Your task to perform on an android device: Add razer blade to the cart on newegg.com, then select checkout. Image 0: 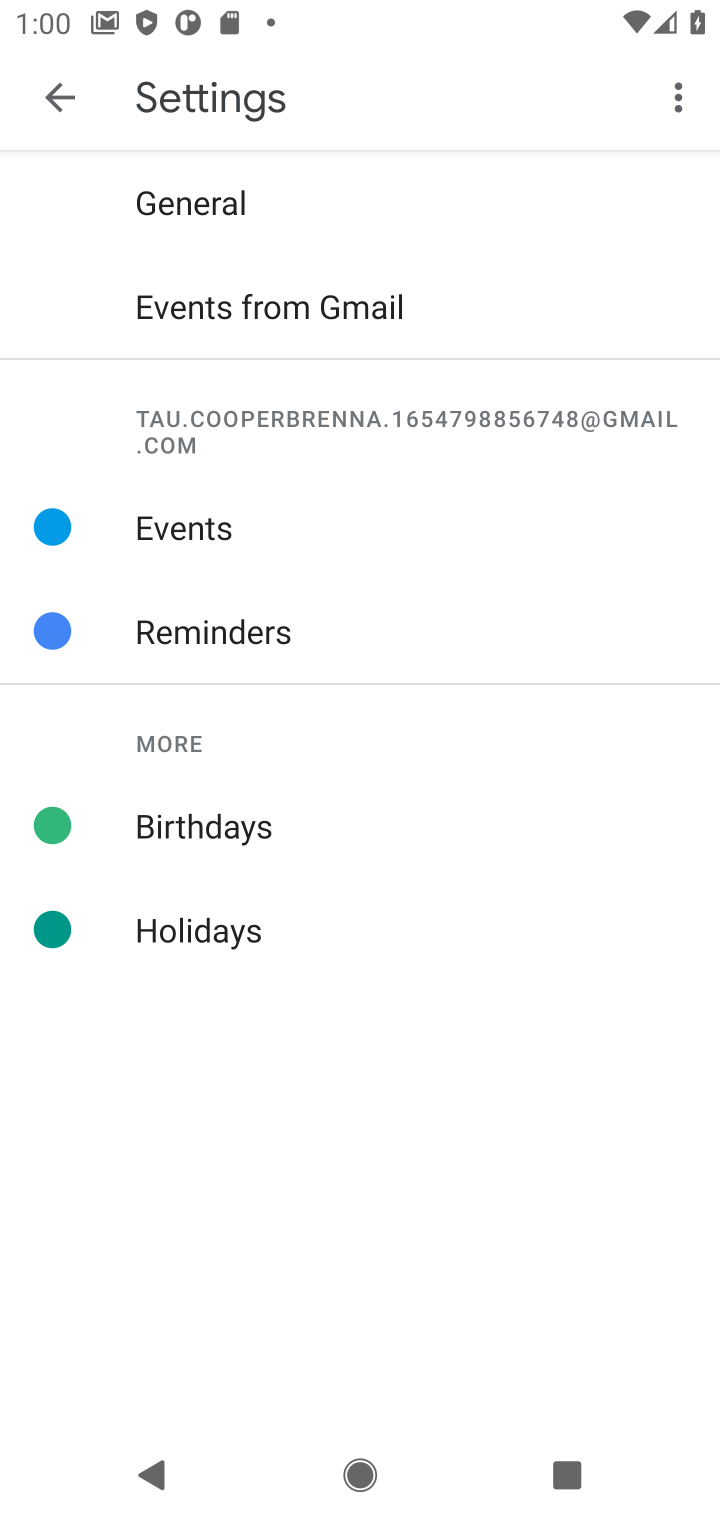
Step 0: press home button
Your task to perform on an android device: Add razer blade to the cart on newegg.com, then select checkout. Image 1: 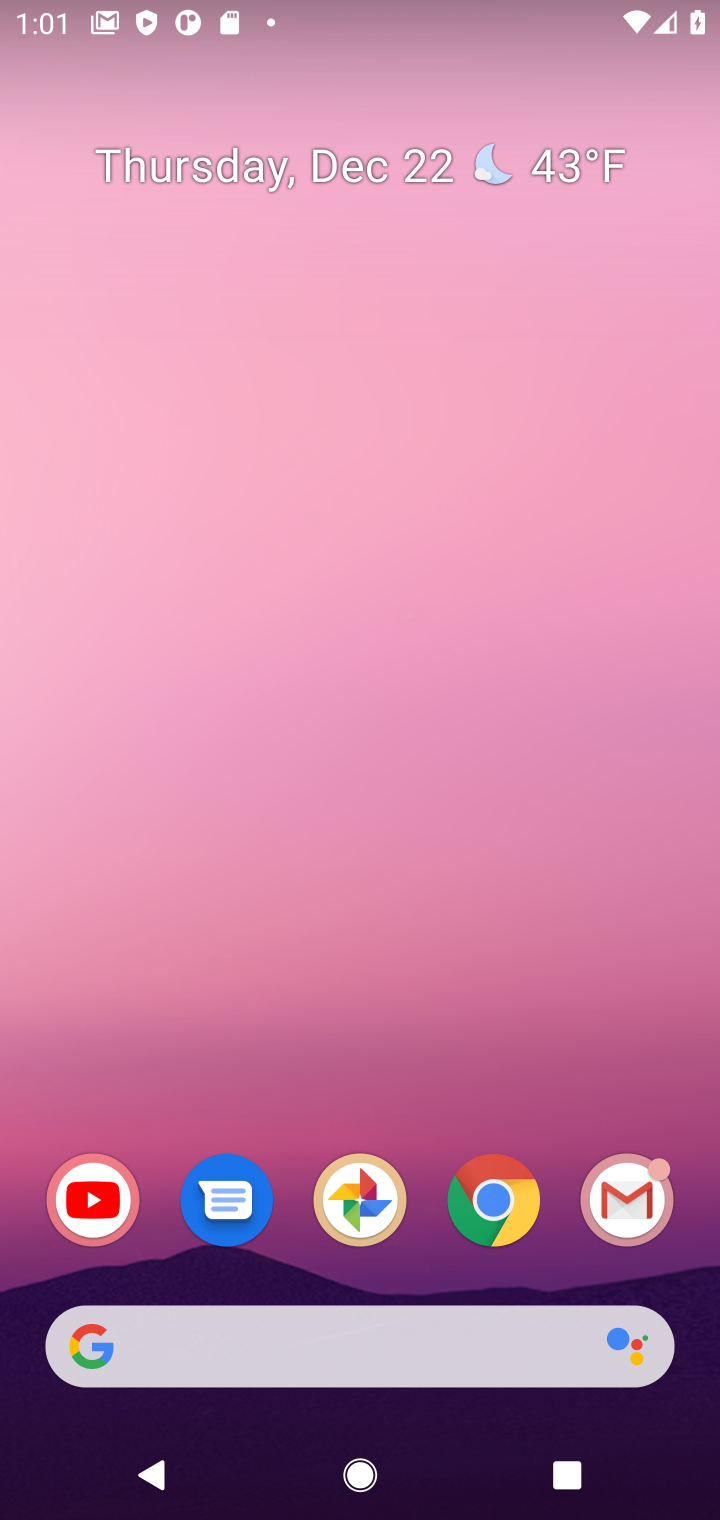
Step 1: click (493, 1201)
Your task to perform on an android device: Add razer blade to the cart on newegg.com, then select checkout. Image 2: 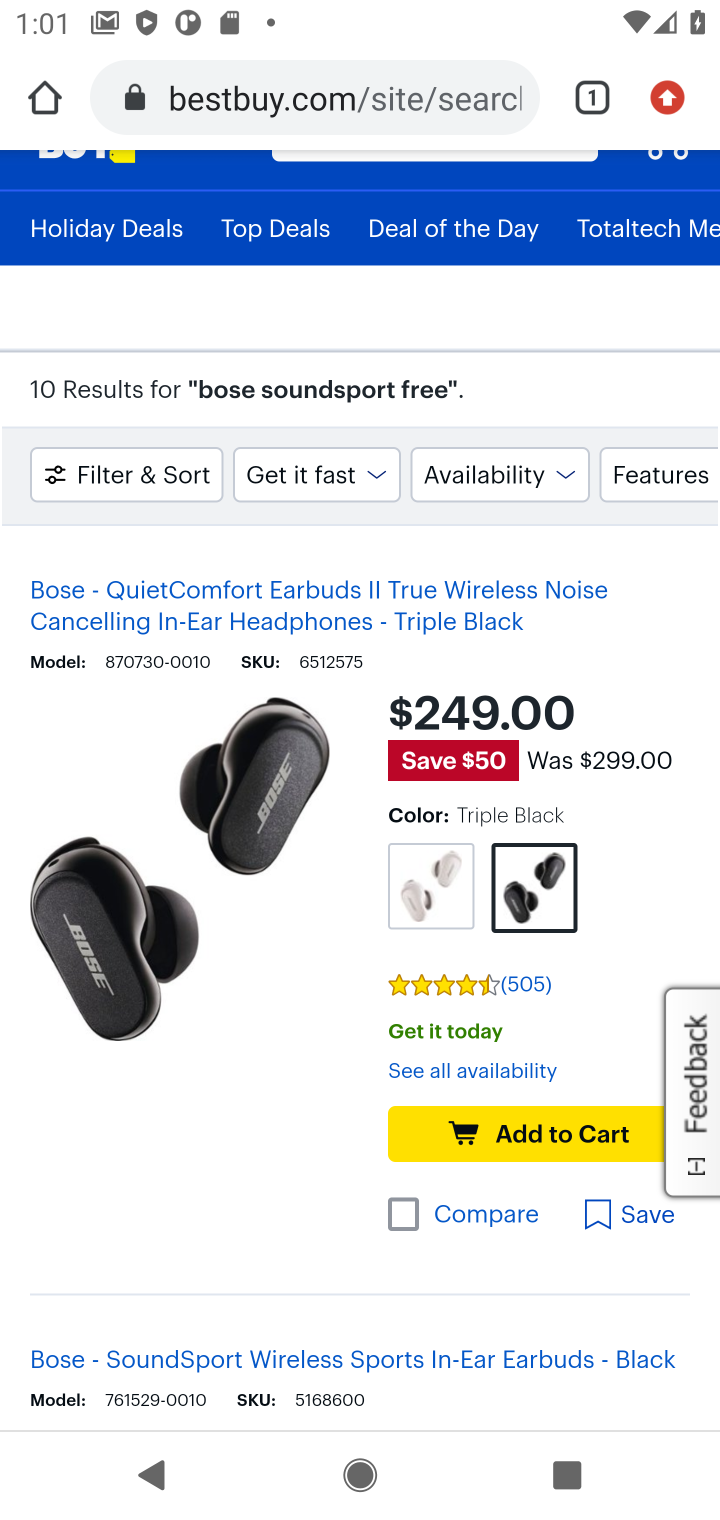
Step 2: click (245, 97)
Your task to perform on an android device: Add razer blade to the cart on newegg.com, then select checkout. Image 3: 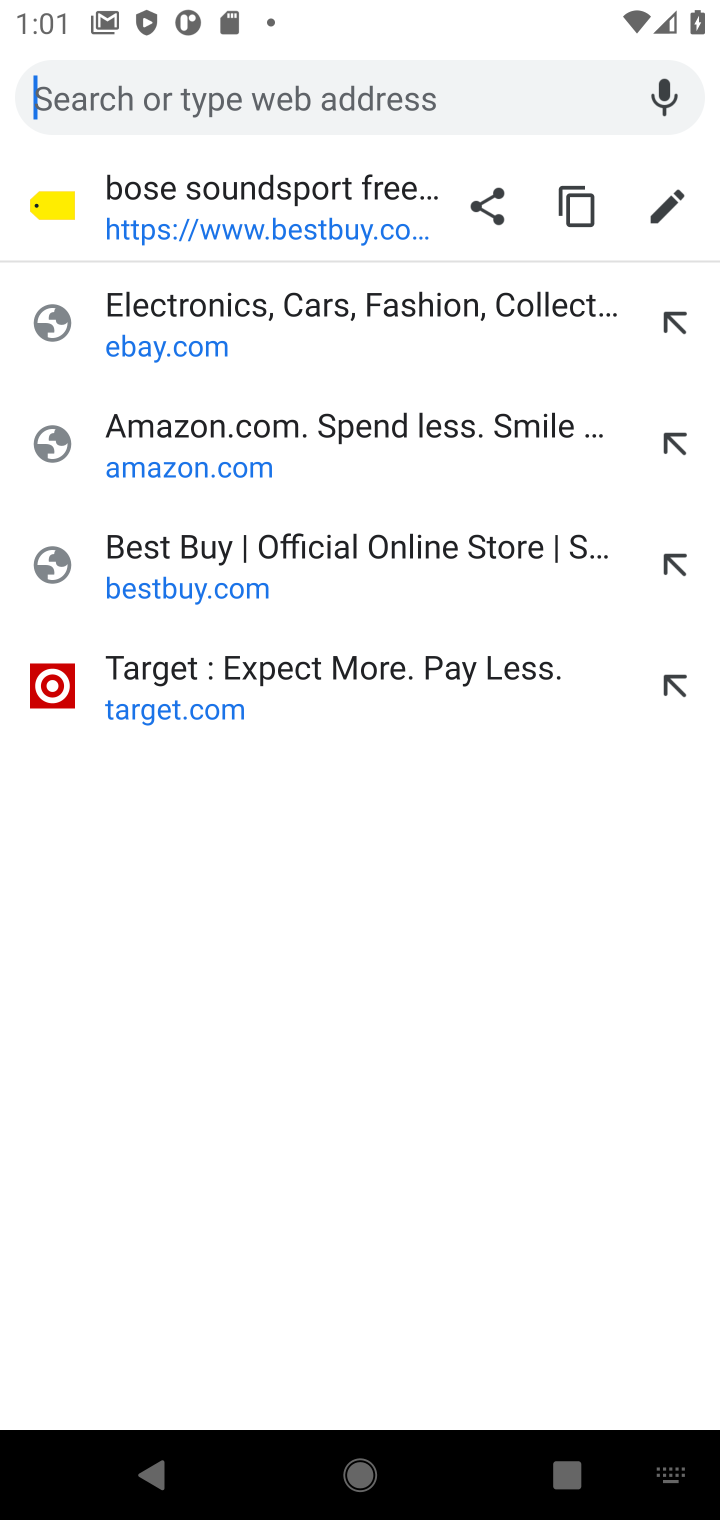
Step 3: type "newegg.com"
Your task to perform on an android device: Add razer blade to the cart on newegg.com, then select checkout. Image 4: 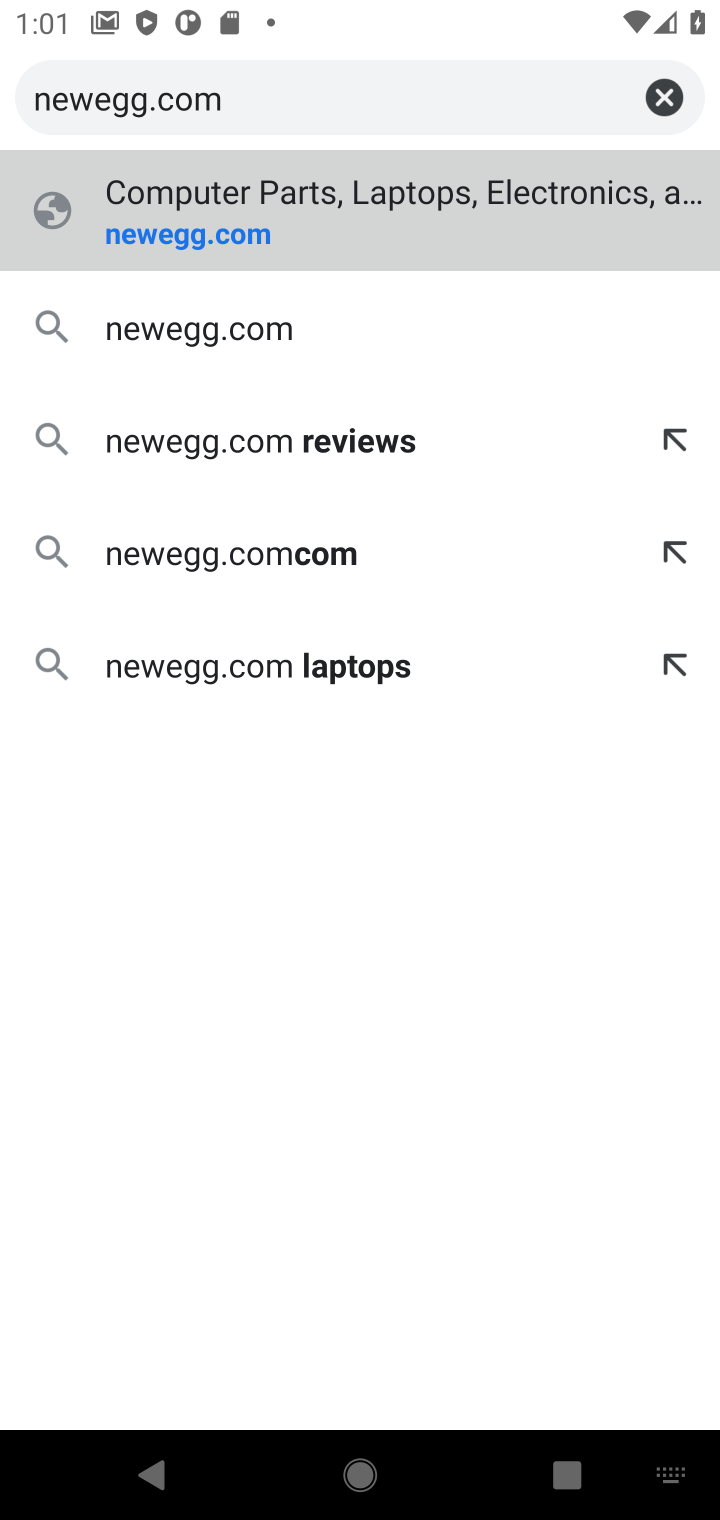
Step 4: click (144, 246)
Your task to perform on an android device: Add razer blade to the cart on newegg.com, then select checkout. Image 5: 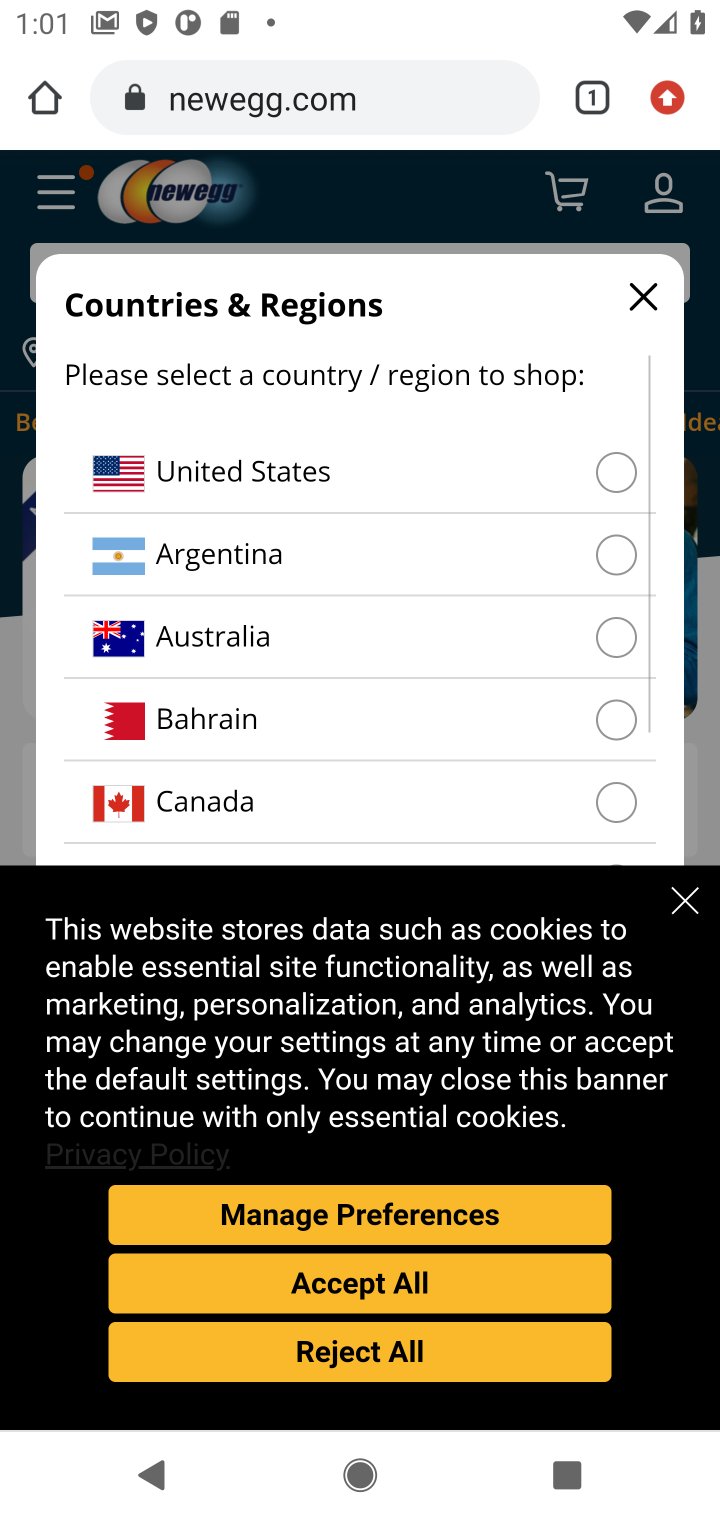
Step 5: click (686, 909)
Your task to perform on an android device: Add razer blade to the cart on newegg.com, then select checkout. Image 6: 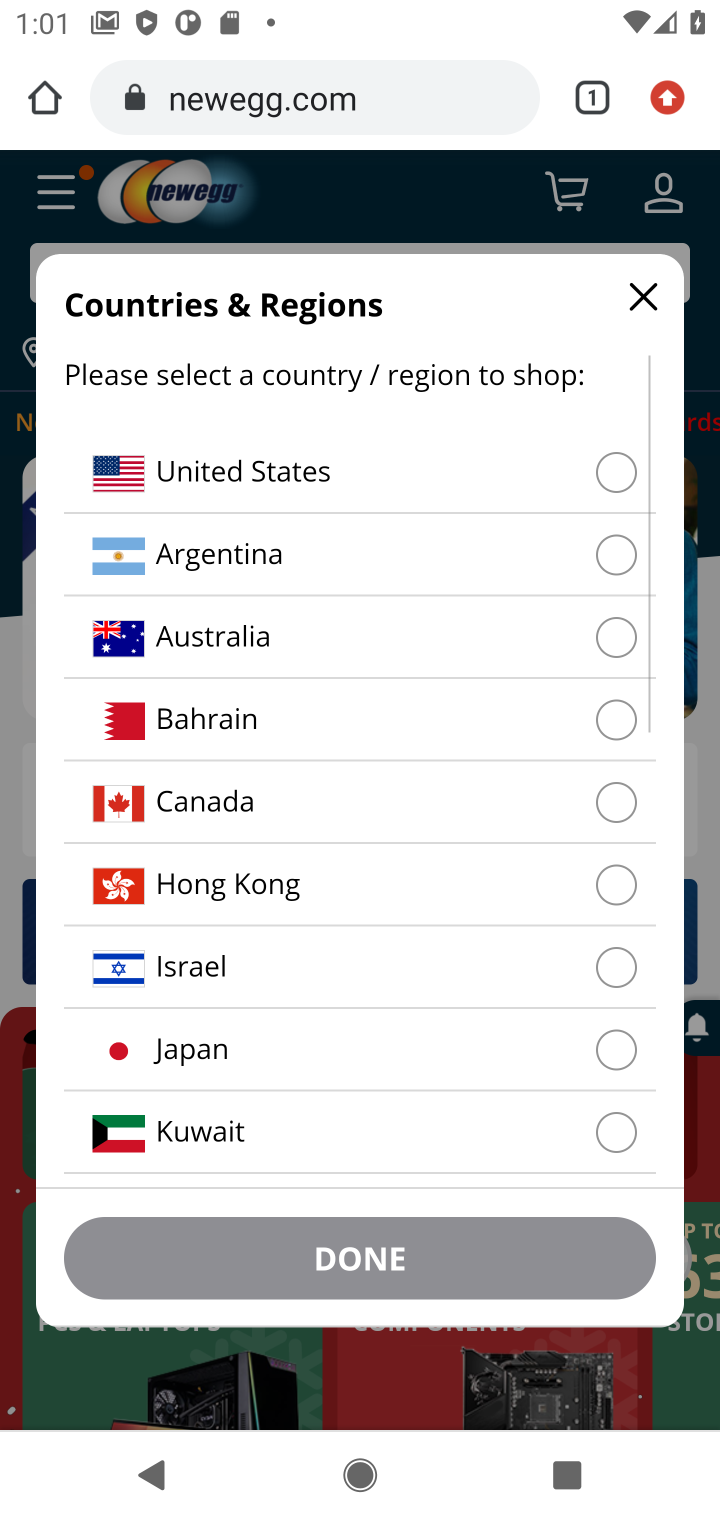
Step 6: click (165, 480)
Your task to perform on an android device: Add razer blade to the cart on newegg.com, then select checkout. Image 7: 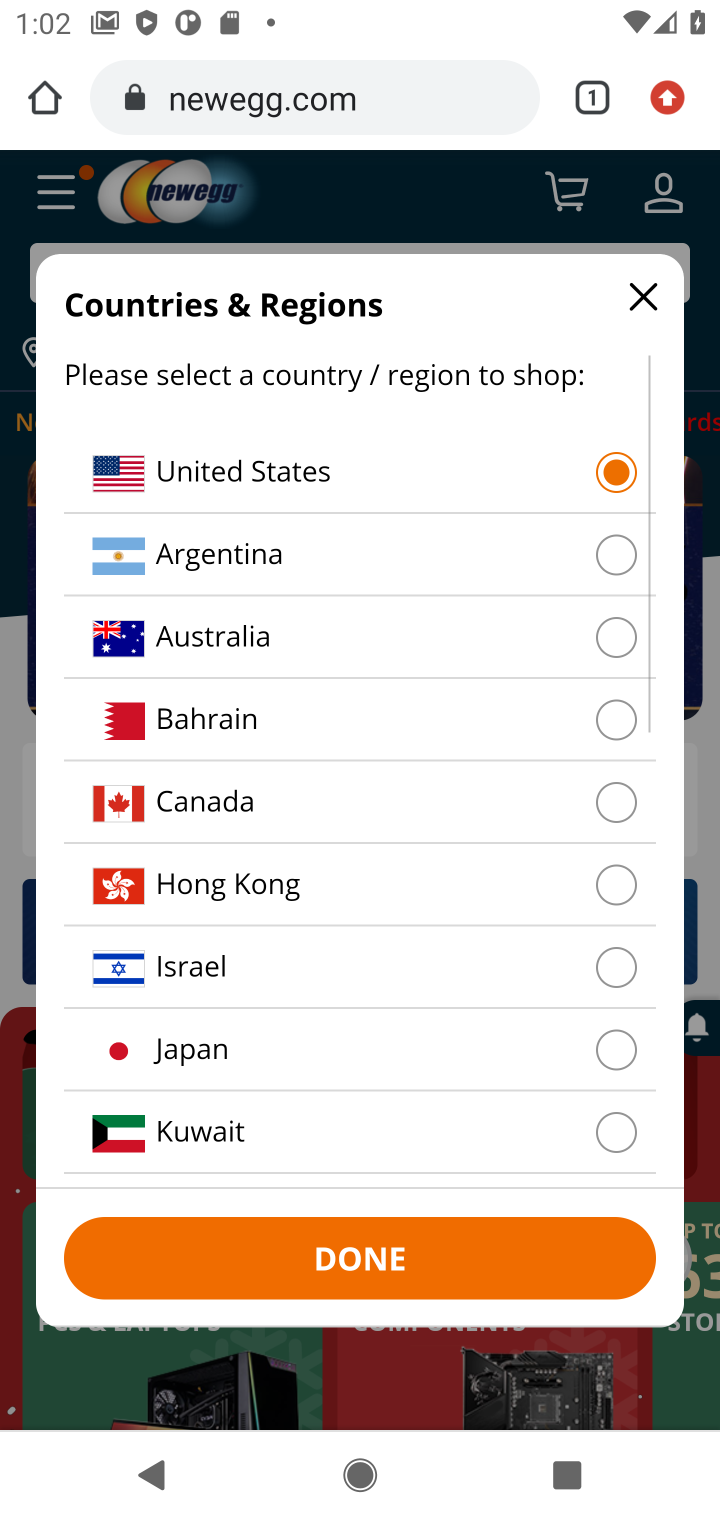
Step 7: click (334, 1265)
Your task to perform on an android device: Add razer blade to the cart on newegg.com, then select checkout. Image 8: 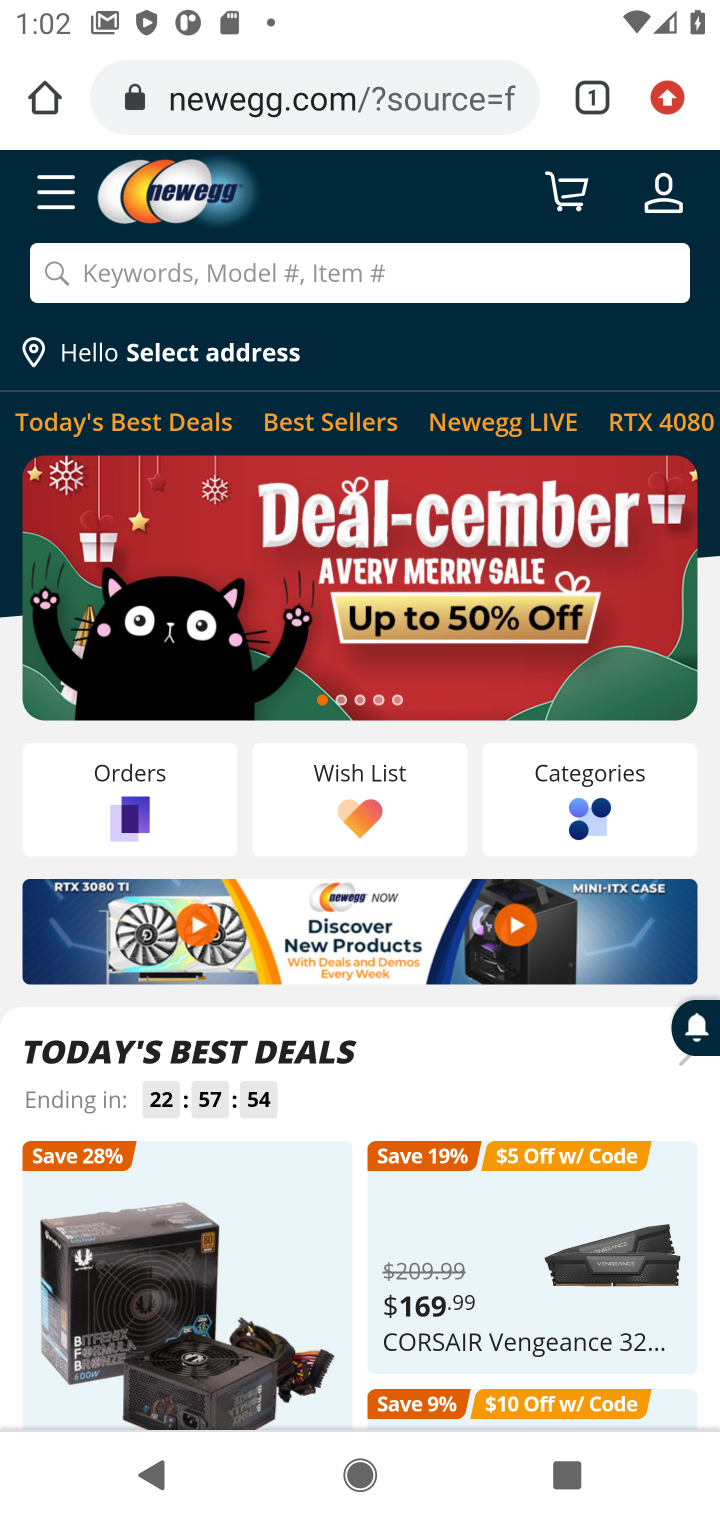
Step 8: click (180, 283)
Your task to perform on an android device: Add razer blade to the cart on newegg.com, then select checkout. Image 9: 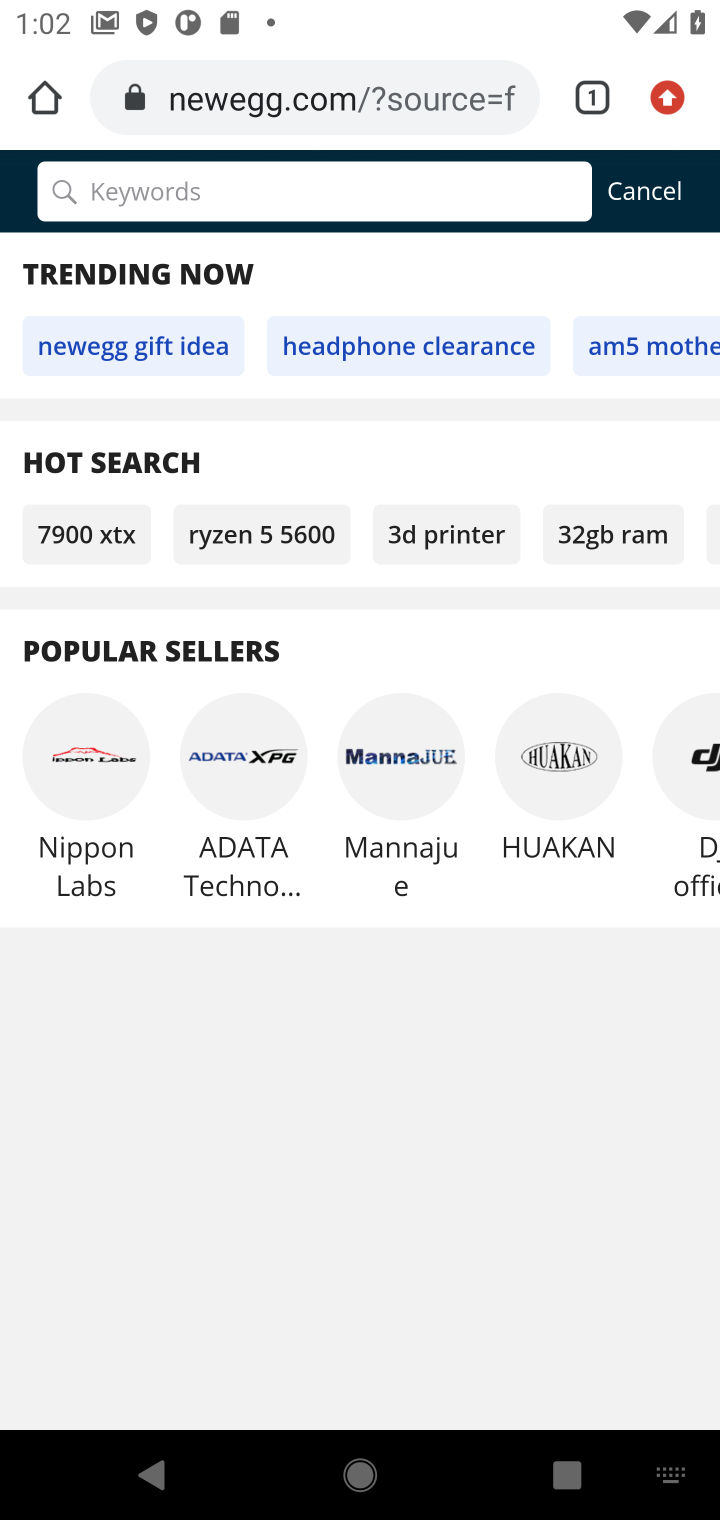
Step 9: type " razer blade"
Your task to perform on an android device: Add razer blade to the cart on newegg.com, then select checkout. Image 10: 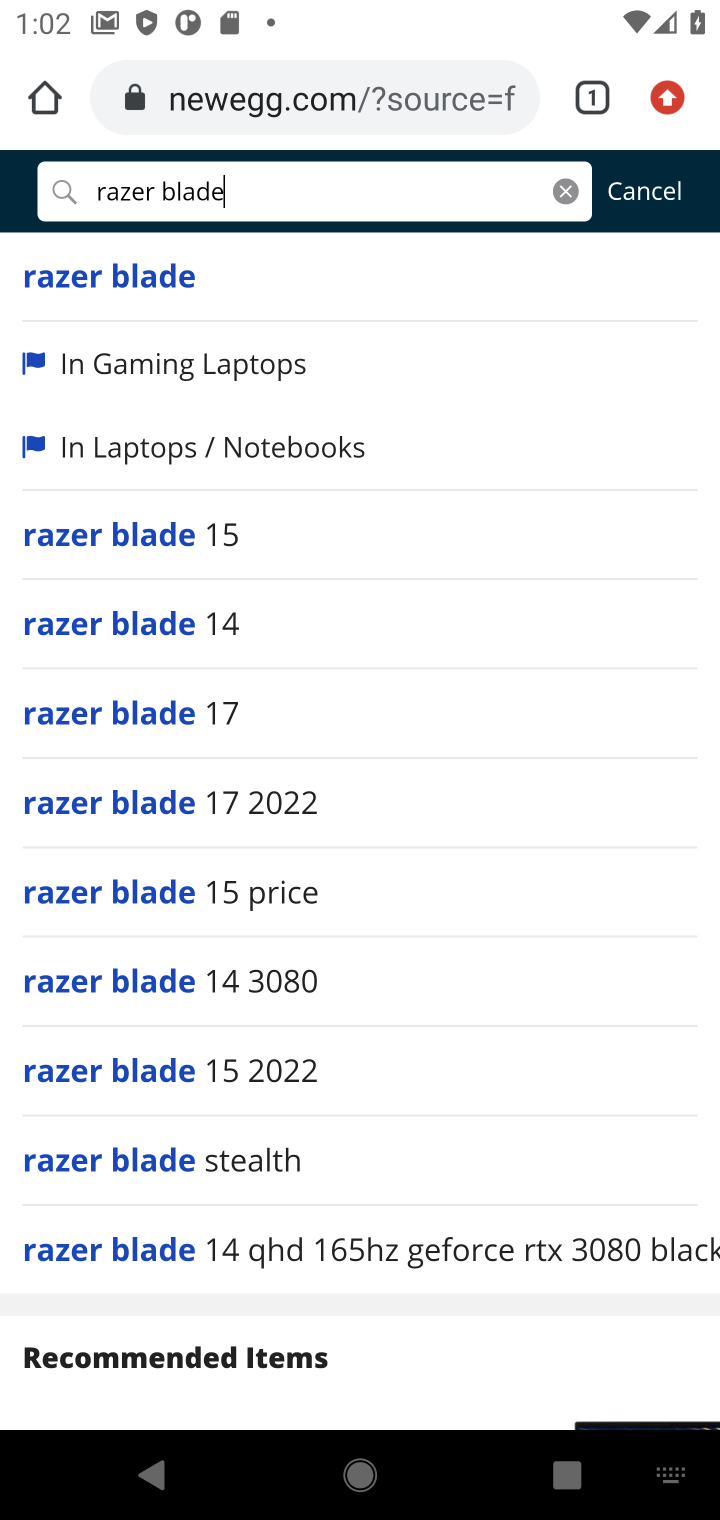
Step 10: click (139, 274)
Your task to perform on an android device: Add razer blade to the cart on newegg.com, then select checkout. Image 11: 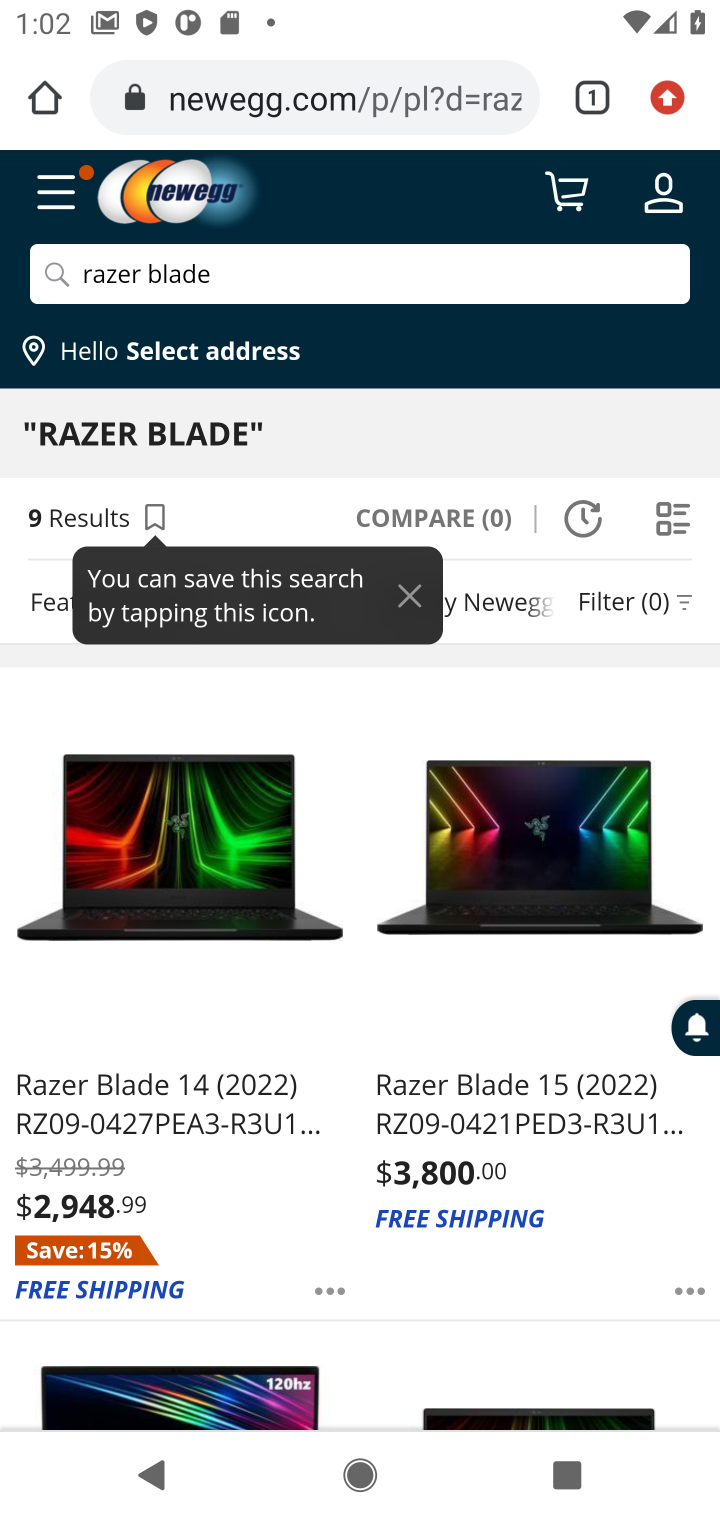
Step 11: click (138, 1105)
Your task to perform on an android device: Add razer blade to the cart on newegg.com, then select checkout. Image 12: 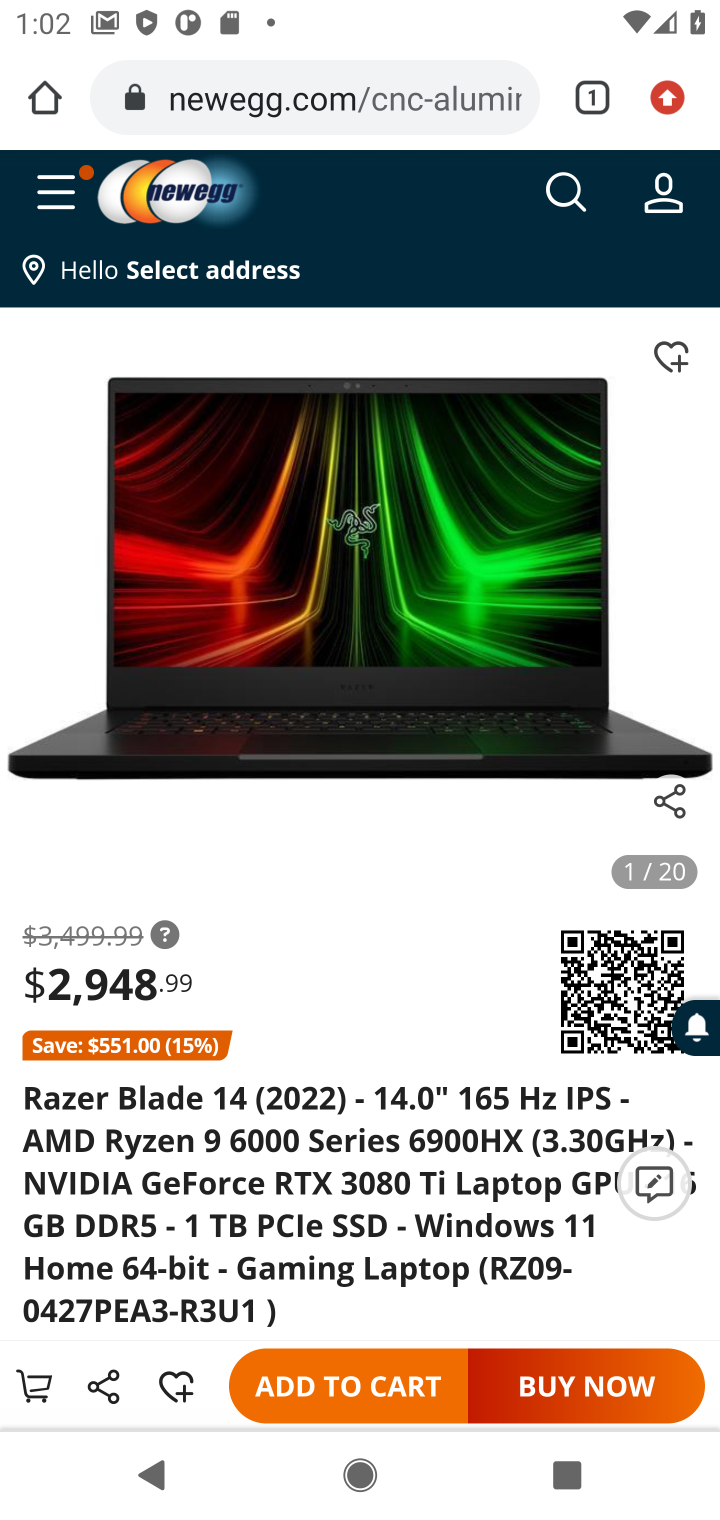
Step 12: drag from (183, 1037) to (181, 776)
Your task to perform on an android device: Add razer blade to the cart on newegg.com, then select checkout. Image 13: 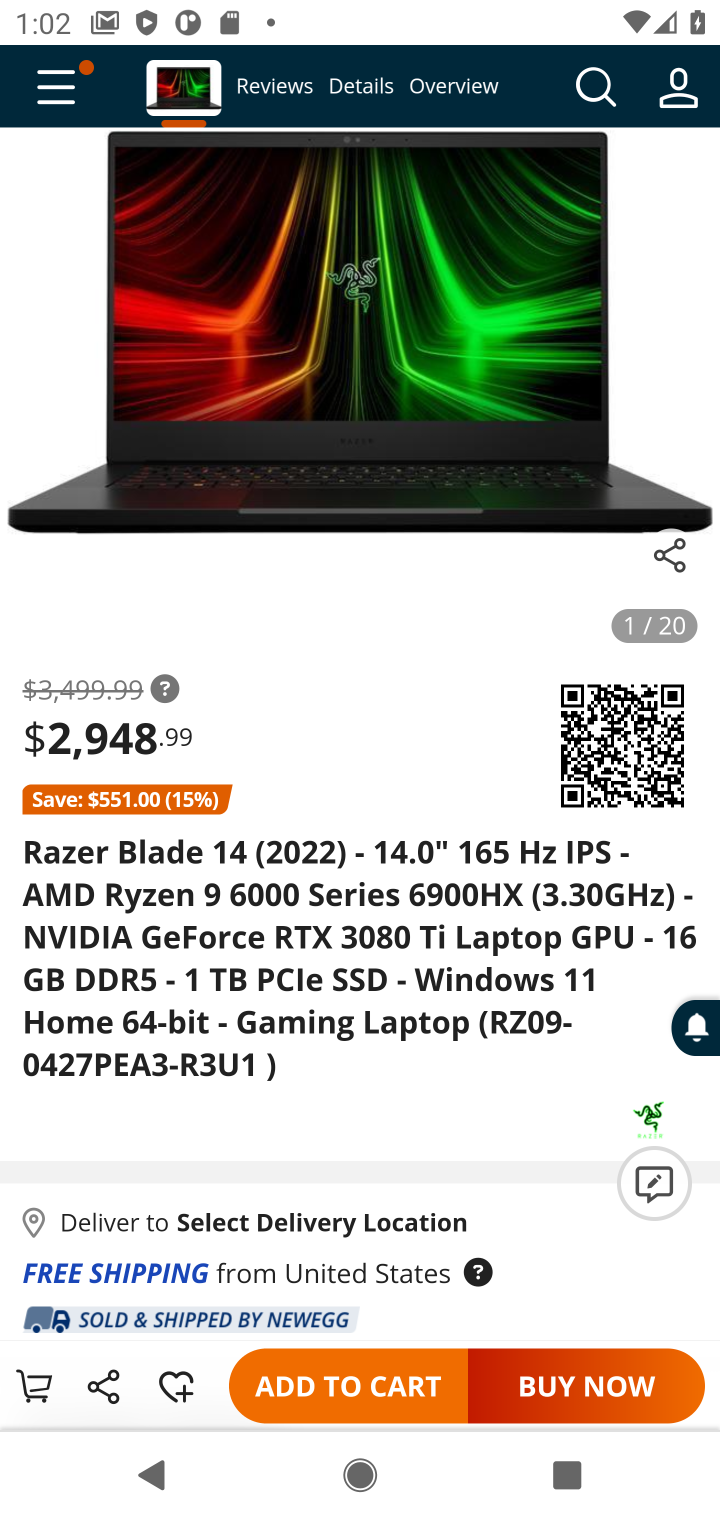
Step 13: click (340, 1392)
Your task to perform on an android device: Add razer blade to the cart on newegg.com, then select checkout. Image 14: 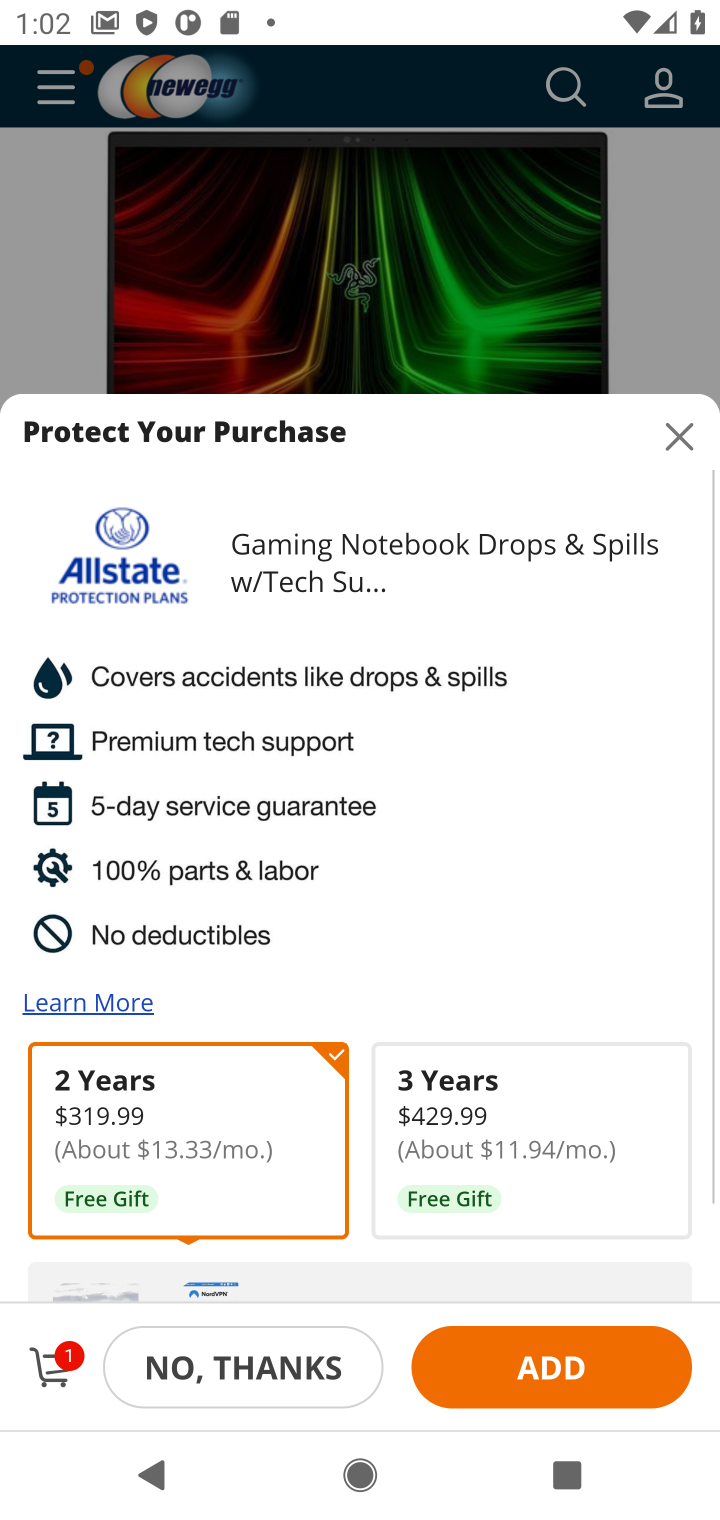
Step 14: click (62, 1366)
Your task to perform on an android device: Add razer blade to the cart on newegg.com, then select checkout. Image 15: 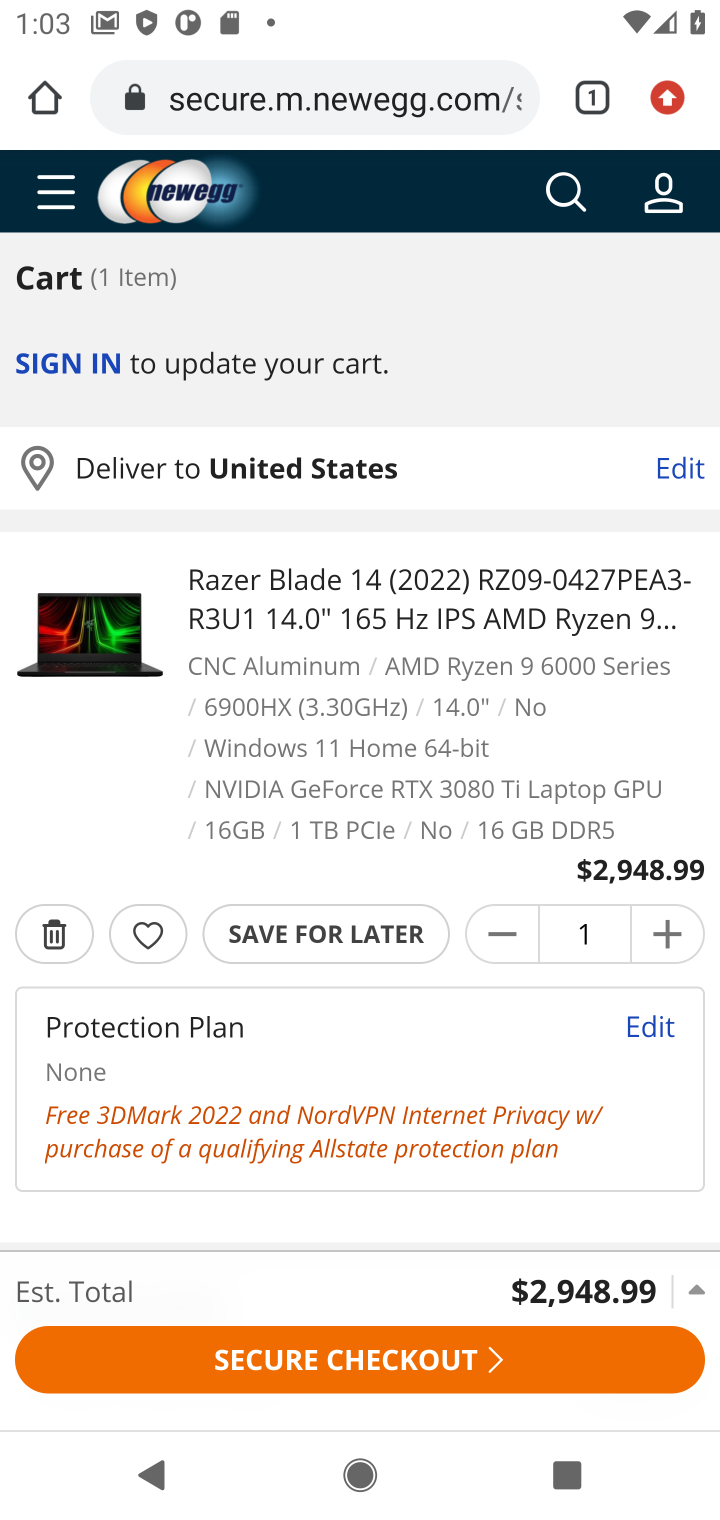
Step 15: click (181, 1359)
Your task to perform on an android device: Add razer blade to the cart on newegg.com, then select checkout. Image 16: 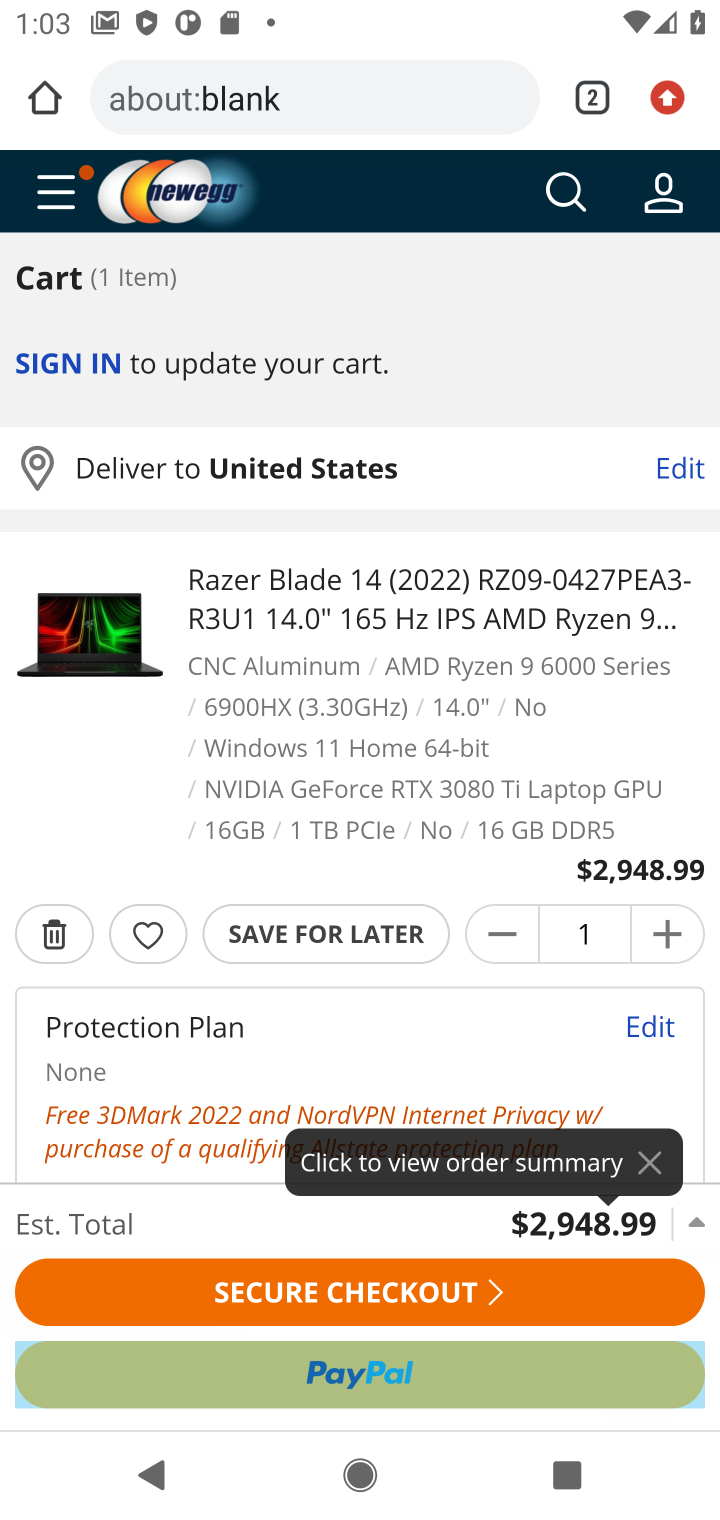
Step 16: click (242, 1278)
Your task to perform on an android device: Add razer blade to the cart on newegg.com, then select checkout. Image 17: 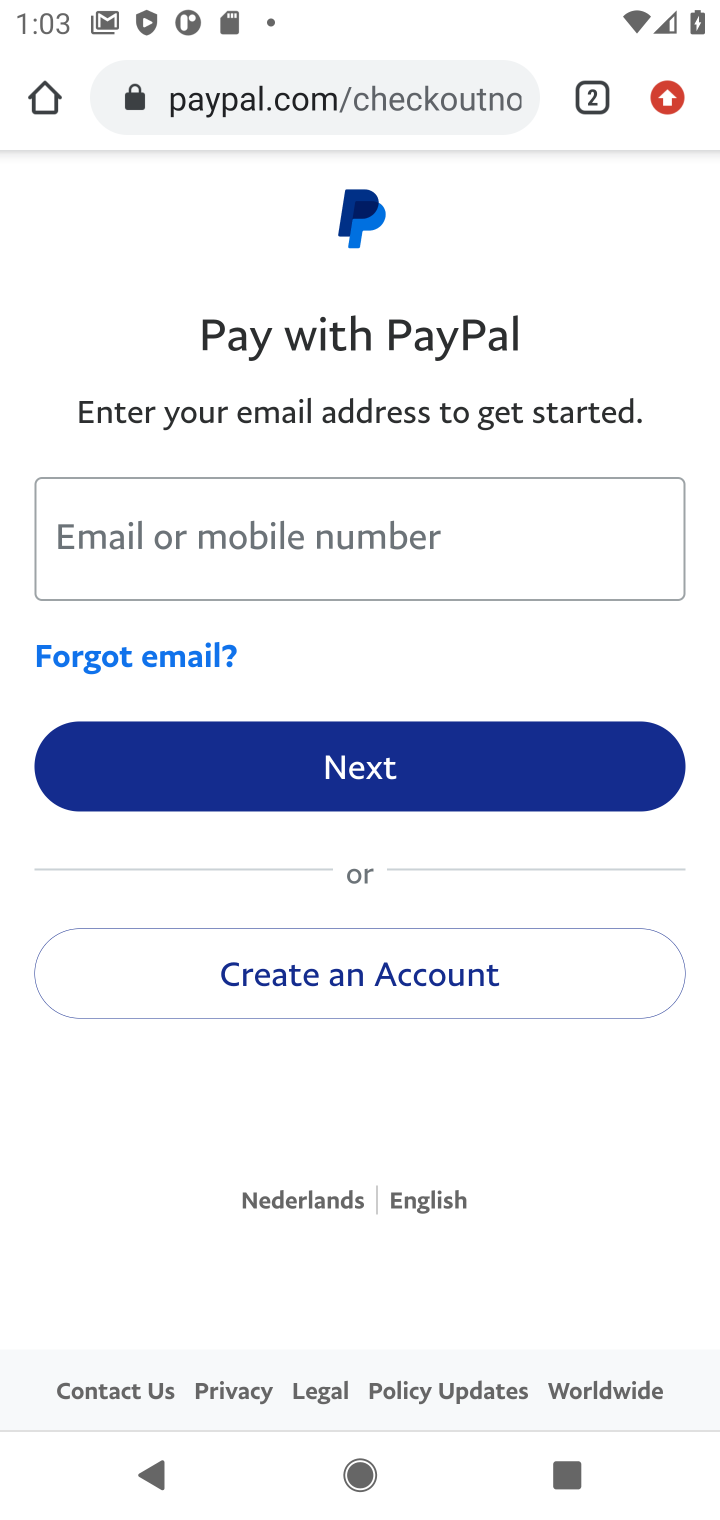
Step 17: task complete